Your task to perform on an android device: Show the shopping cart on walmart. Image 0: 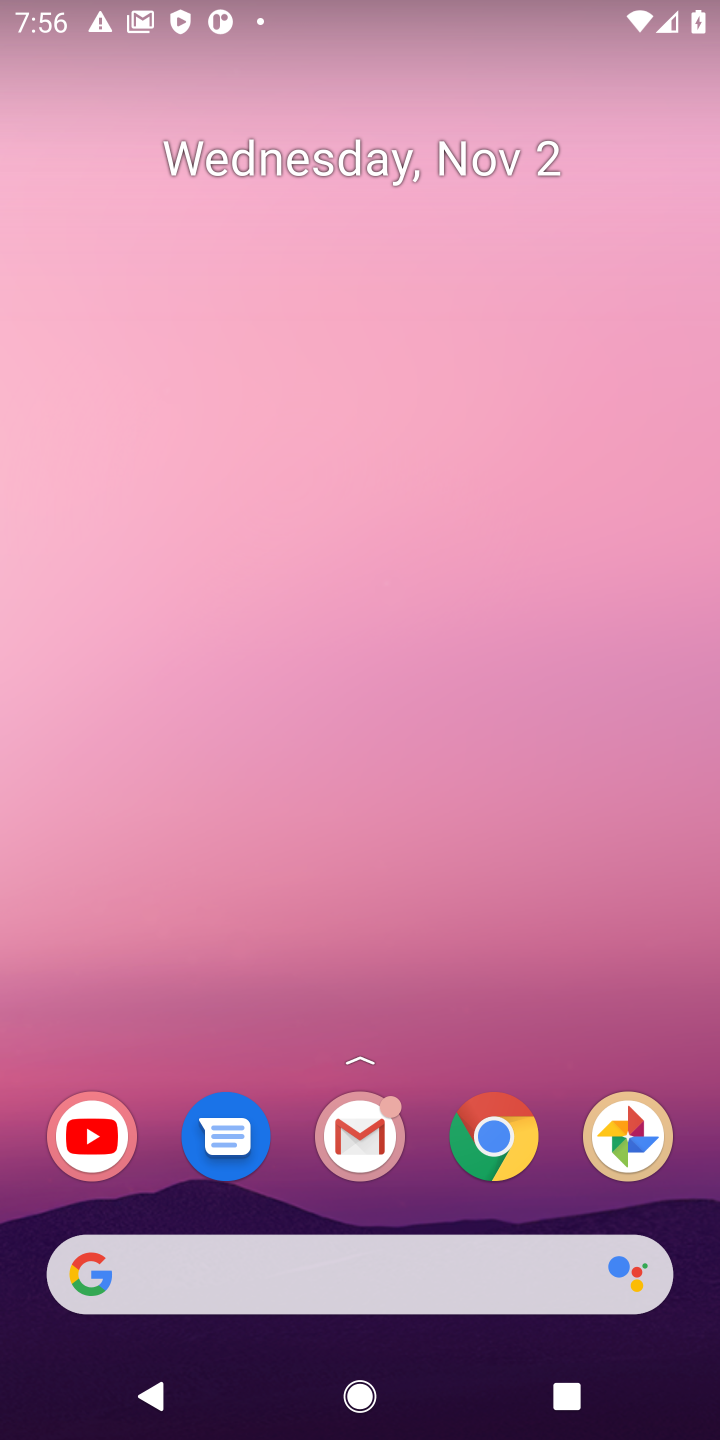
Step 0: drag from (305, 1192) to (251, 16)
Your task to perform on an android device: Show the shopping cart on walmart. Image 1: 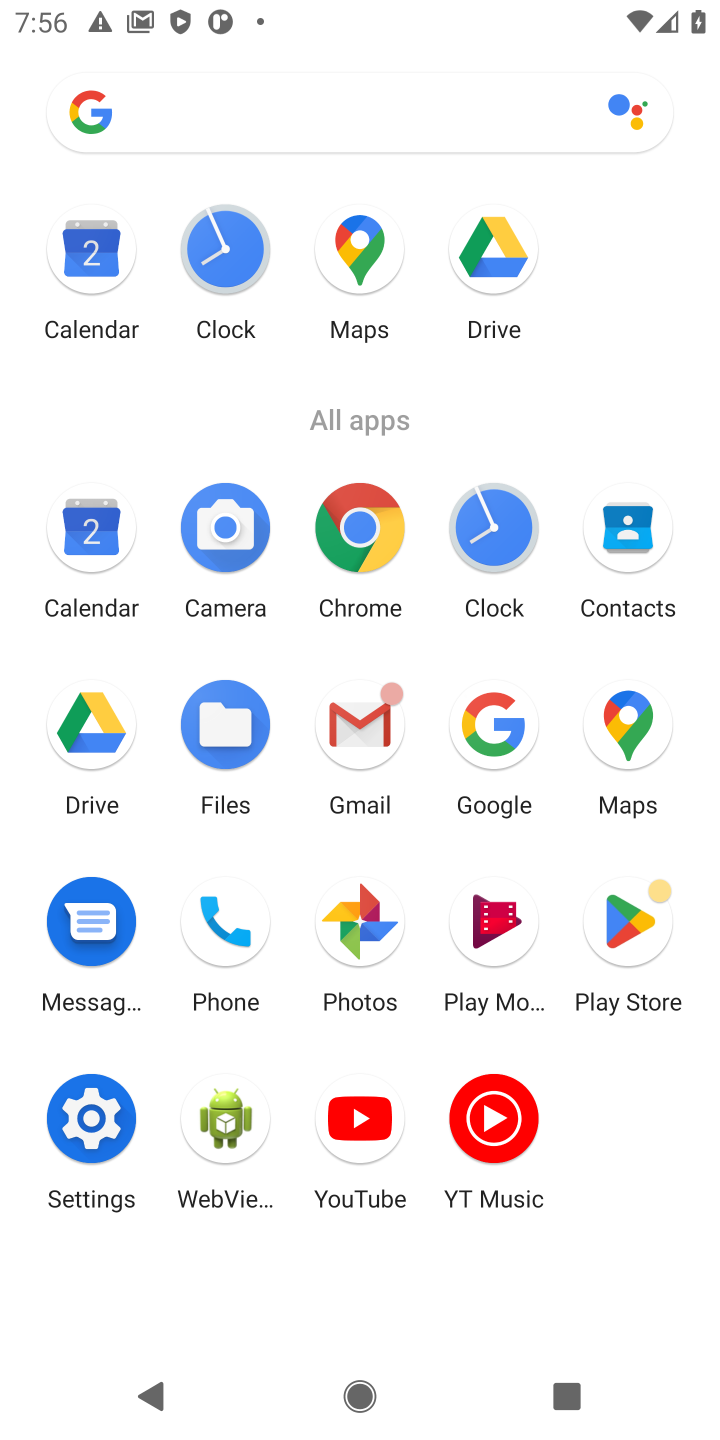
Step 1: click (491, 699)
Your task to perform on an android device: Show the shopping cart on walmart. Image 2: 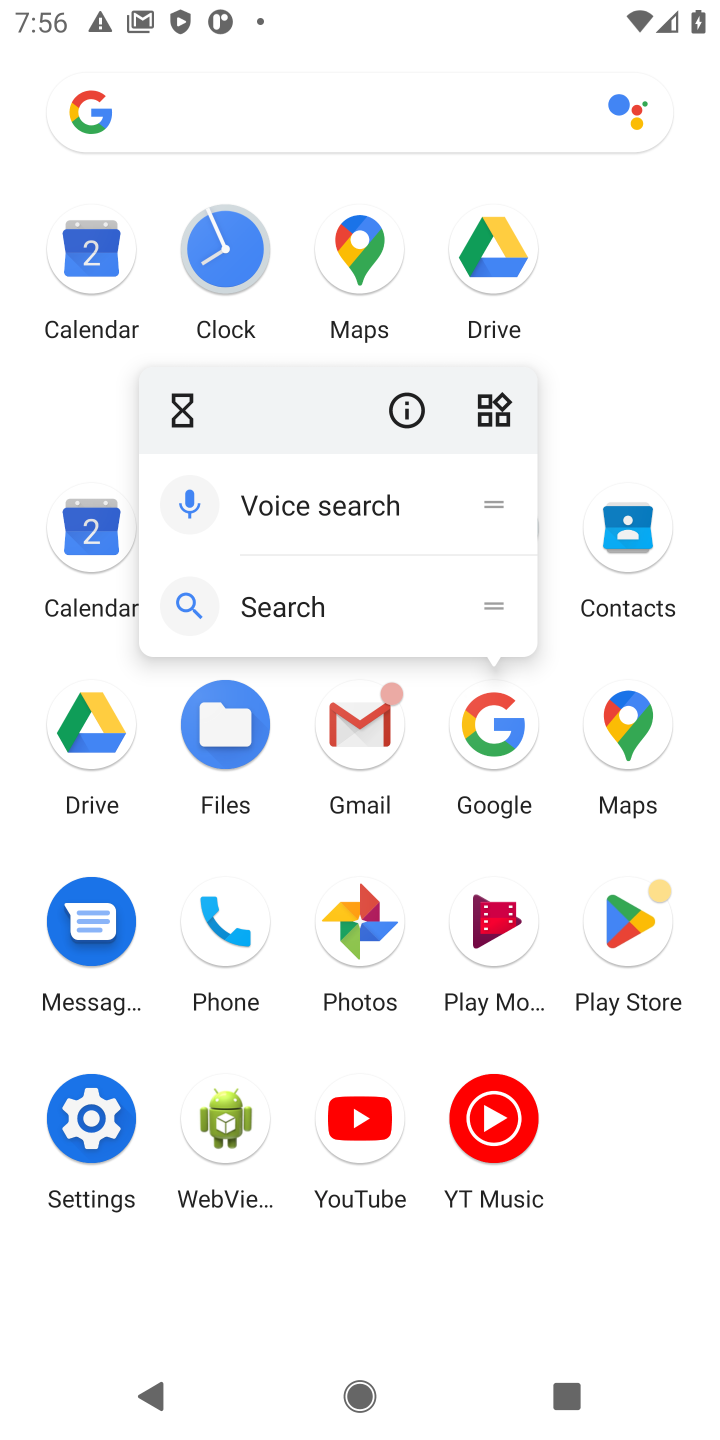
Step 2: click (490, 713)
Your task to perform on an android device: Show the shopping cart on walmart. Image 3: 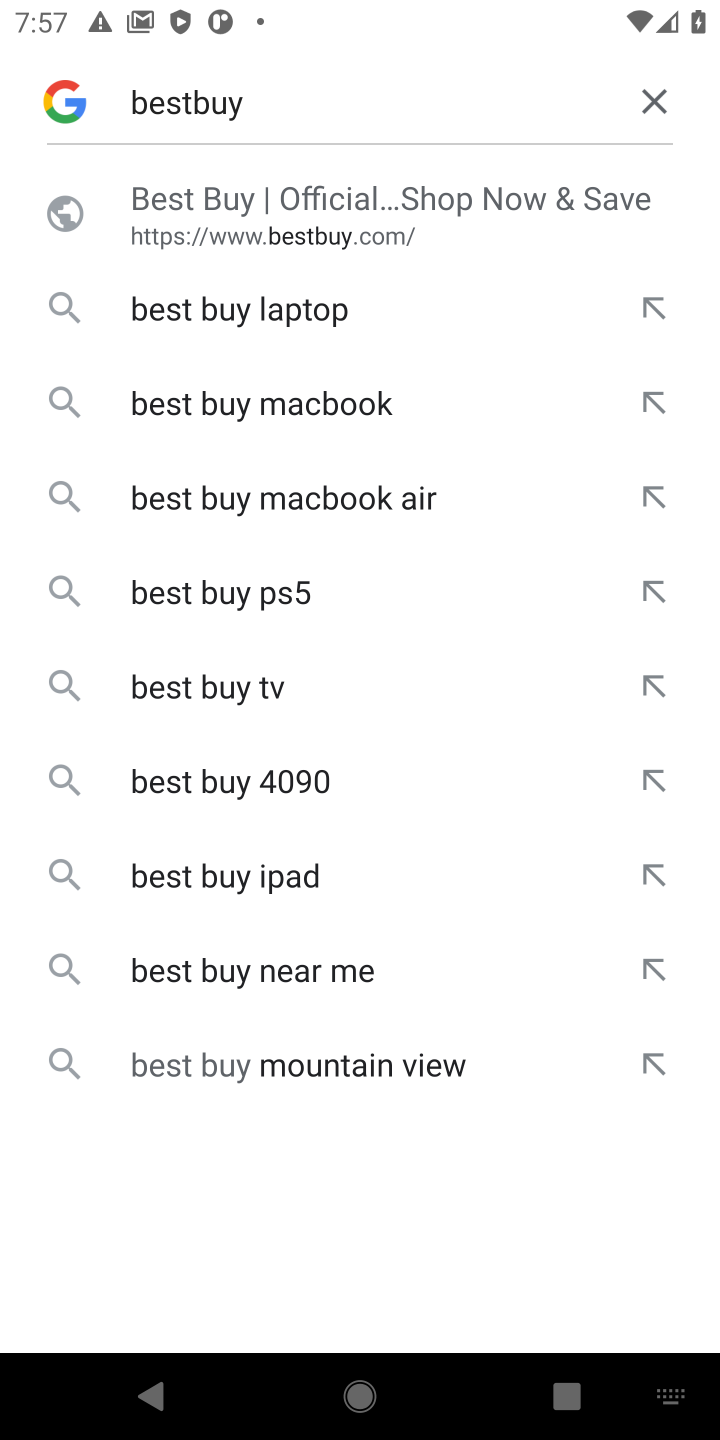
Step 3: click (213, 228)
Your task to perform on an android device: Show the shopping cart on walmart. Image 4: 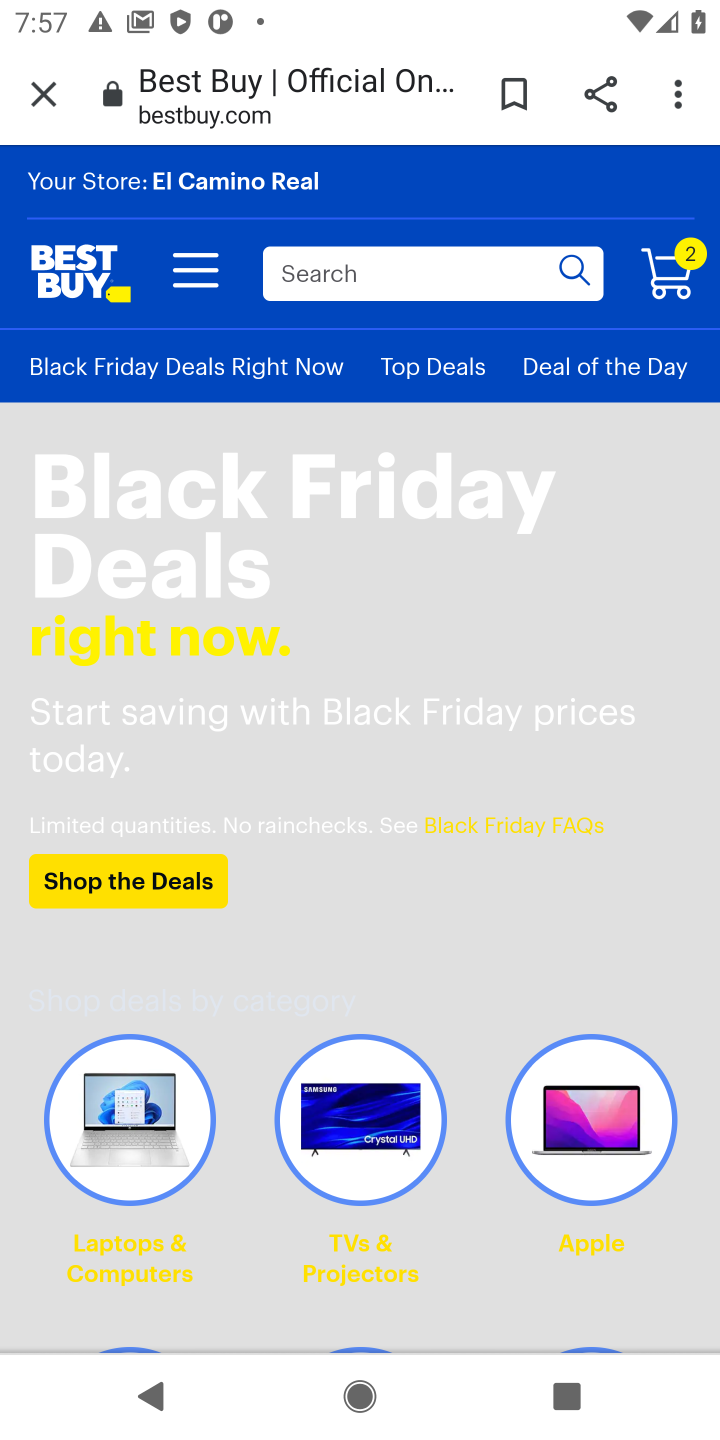
Step 4: click (42, 95)
Your task to perform on an android device: Show the shopping cart on walmart. Image 5: 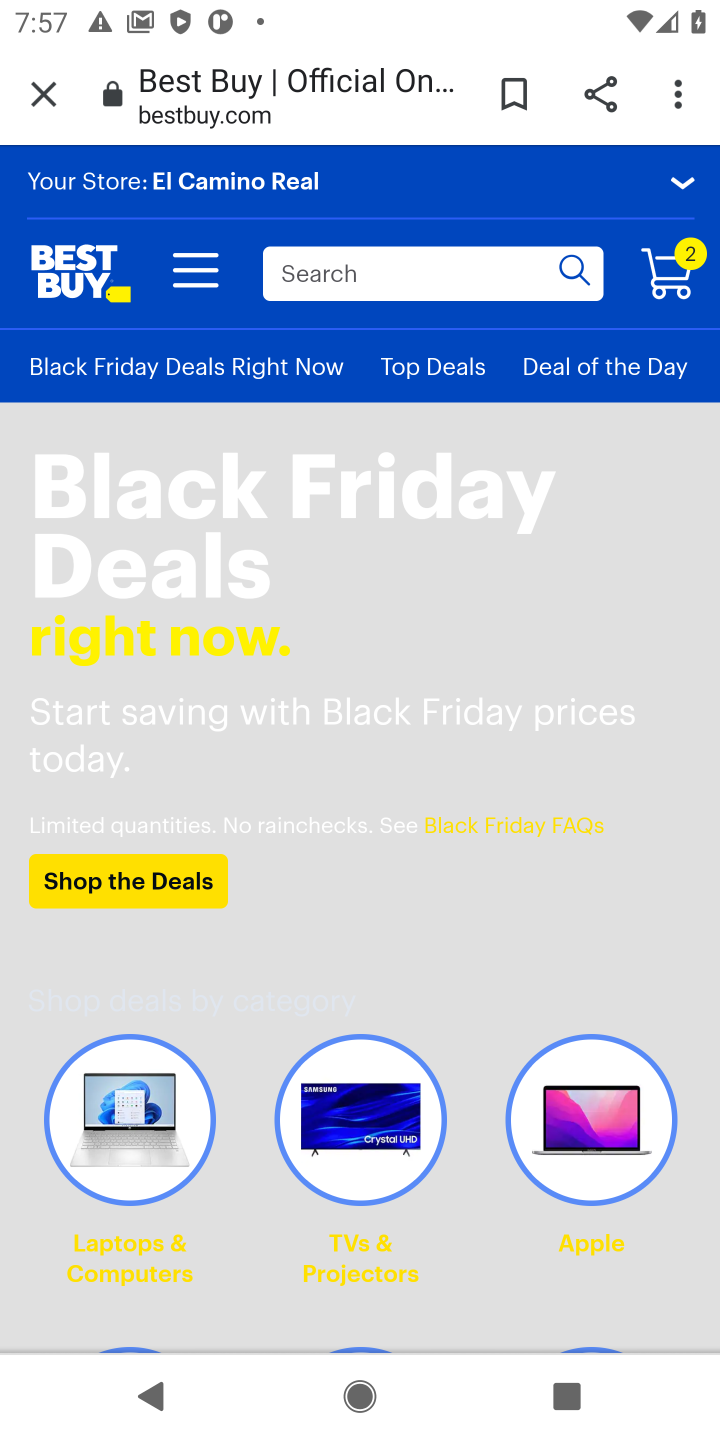
Step 5: click (56, 88)
Your task to perform on an android device: Show the shopping cart on walmart. Image 6: 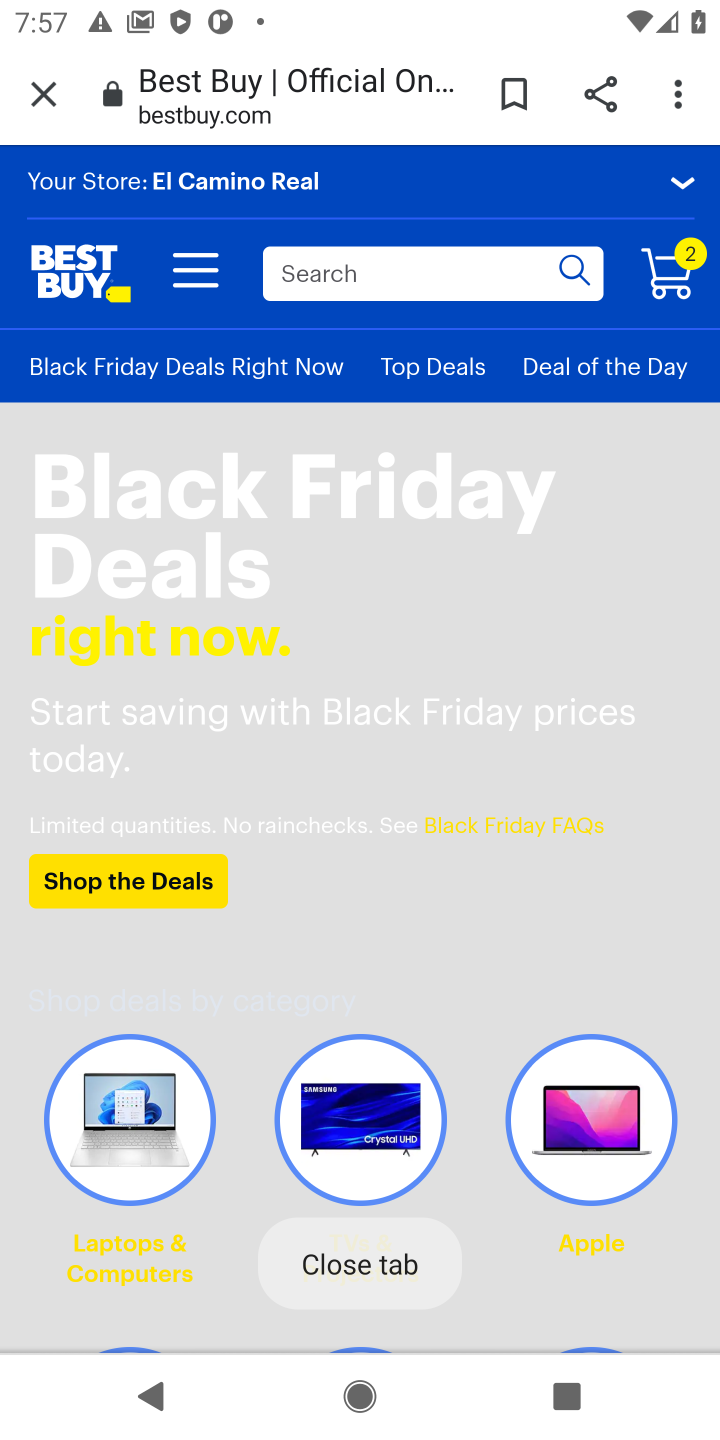
Step 6: click (35, 104)
Your task to perform on an android device: Show the shopping cart on walmart. Image 7: 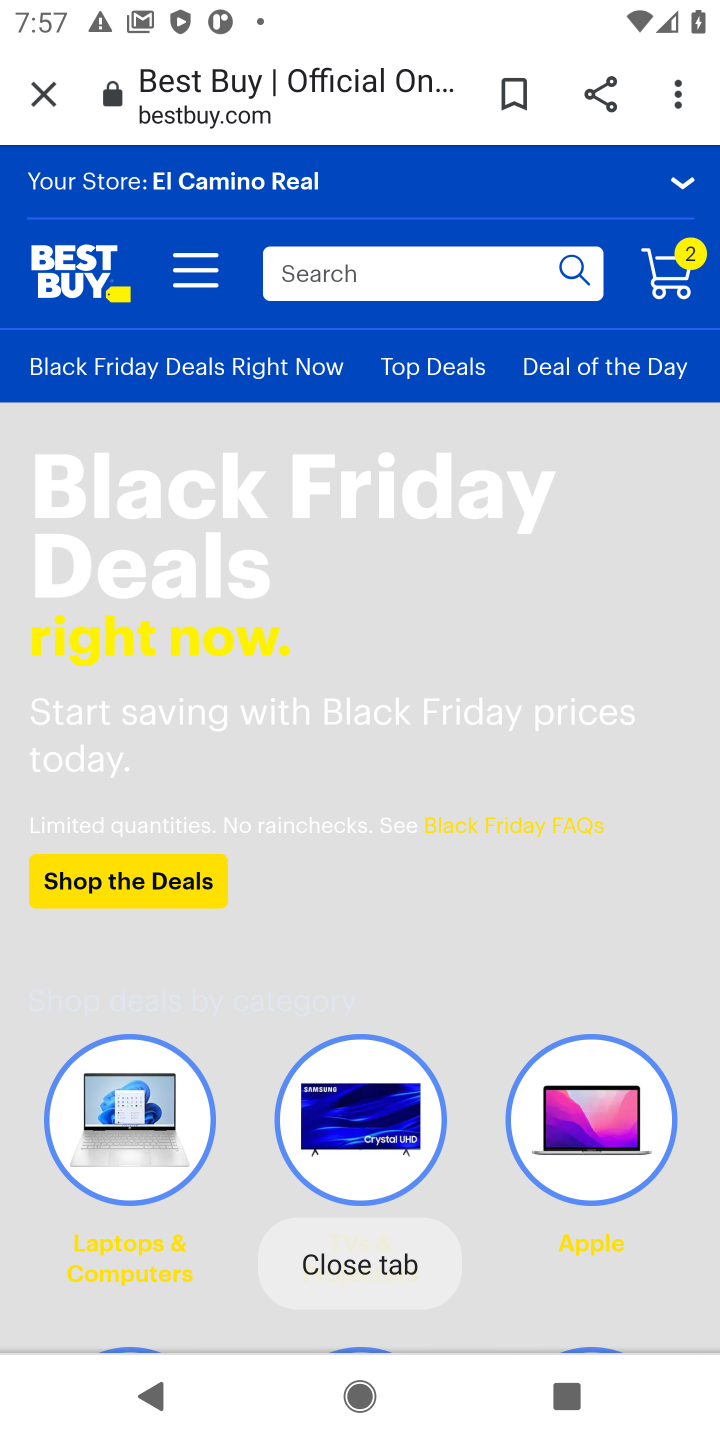
Step 7: press back button
Your task to perform on an android device: Show the shopping cart on walmart. Image 8: 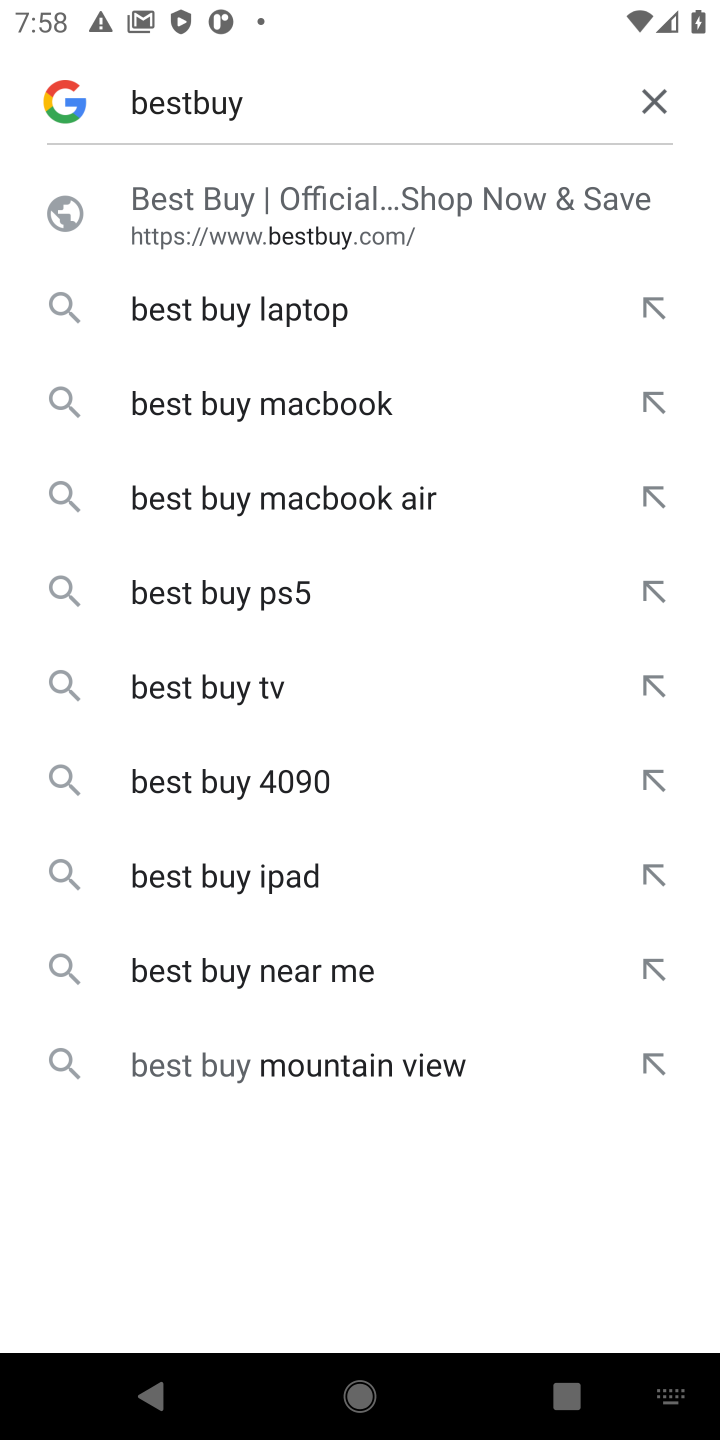
Step 8: click (643, 103)
Your task to perform on an android device: Show the shopping cart on walmart. Image 9: 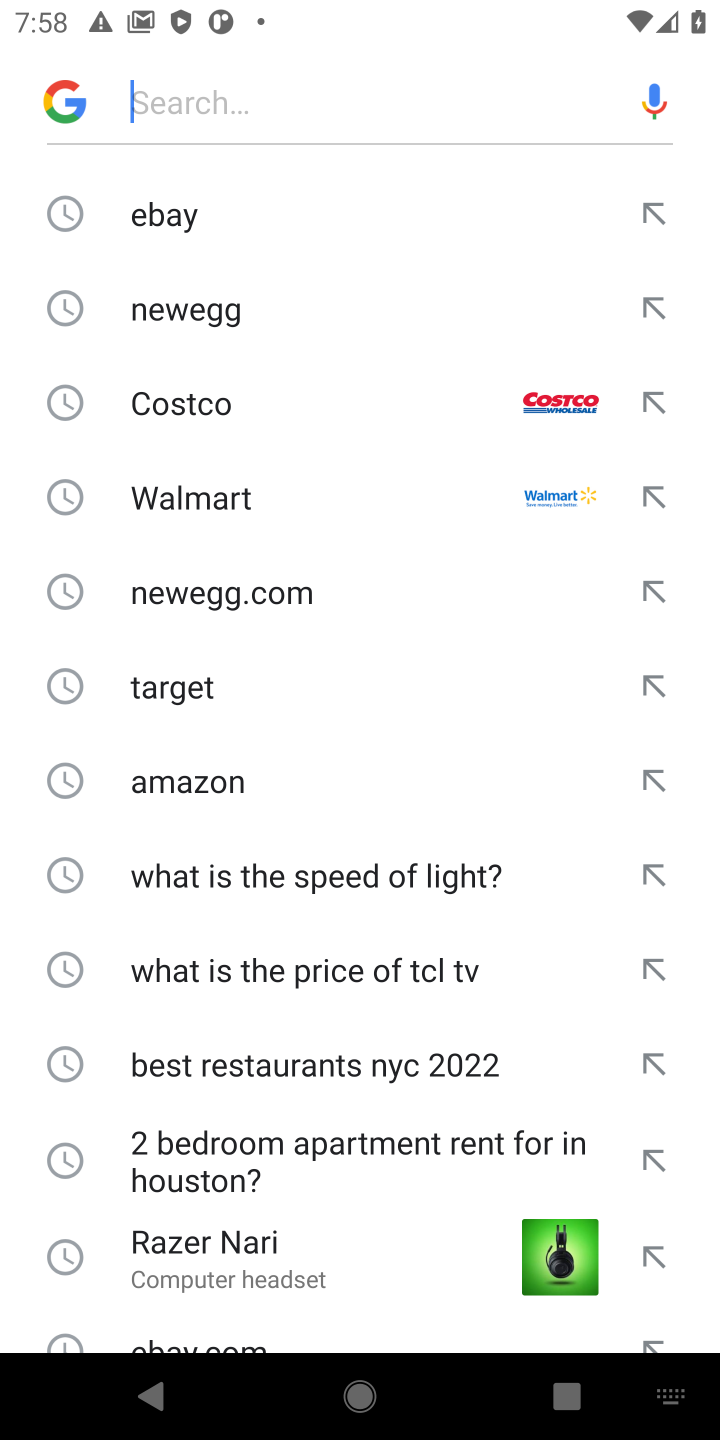
Step 9: click (202, 476)
Your task to perform on an android device: Show the shopping cart on walmart. Image 10: 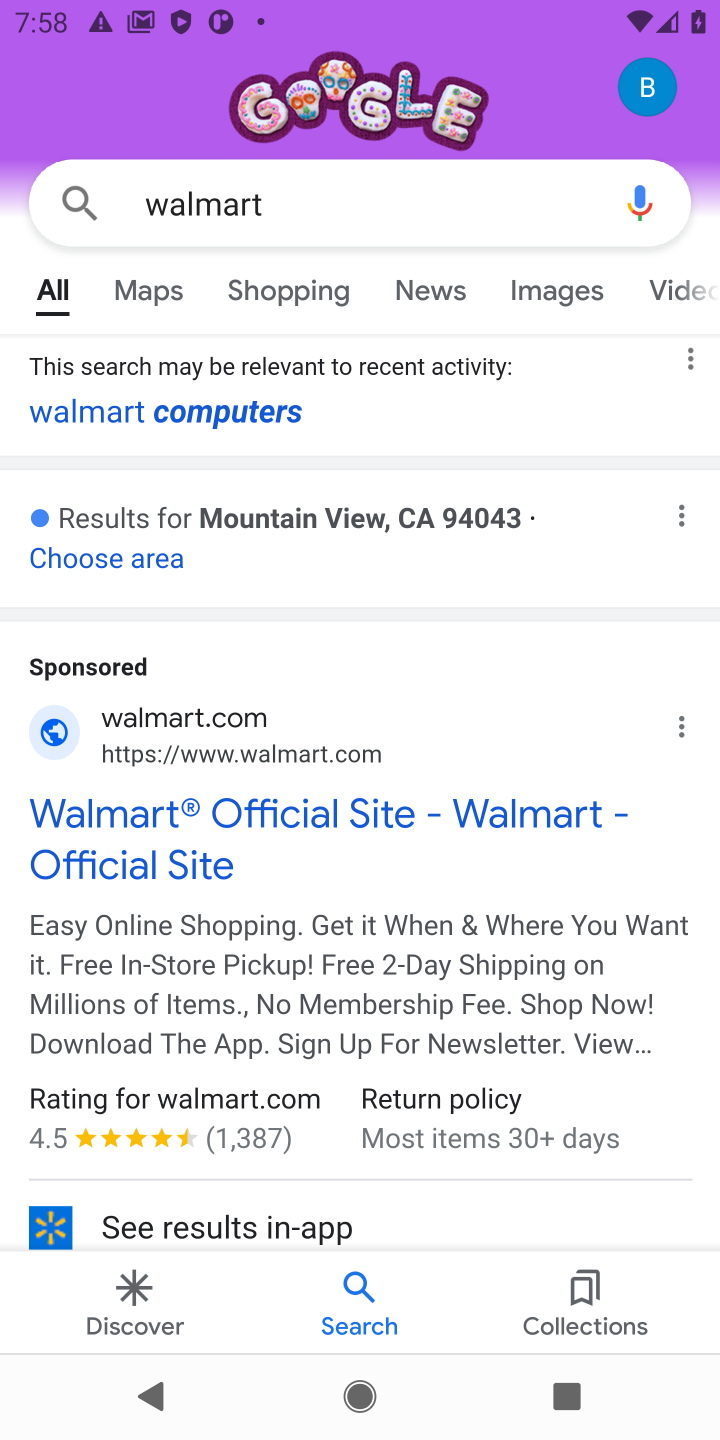
Step 10: drag from (141, 961) to (207, 370)
Your task to perform on an android device: Show the shopping cart on walmart. Image 11: 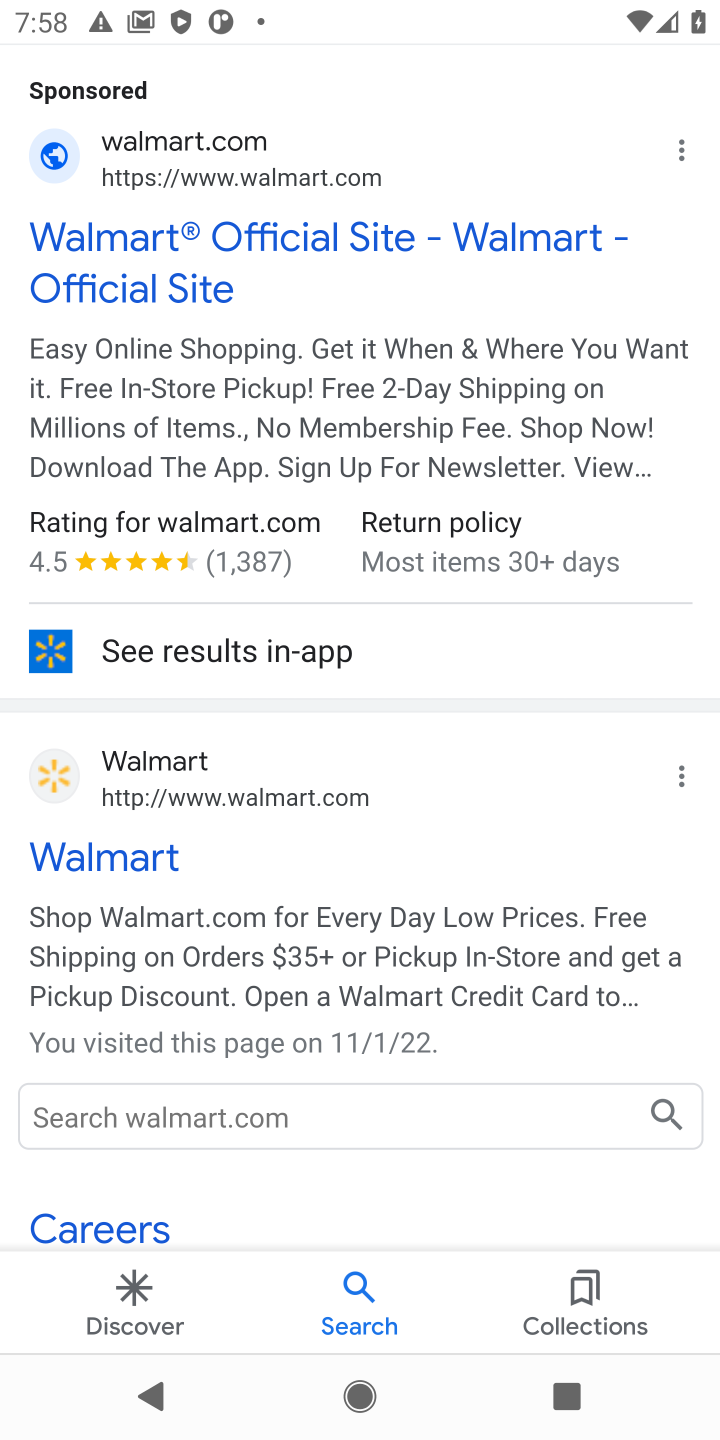
Step 11: click (47, 758)
Your task to perform on an android device: Show the shopping cart on walmart. Image 12: 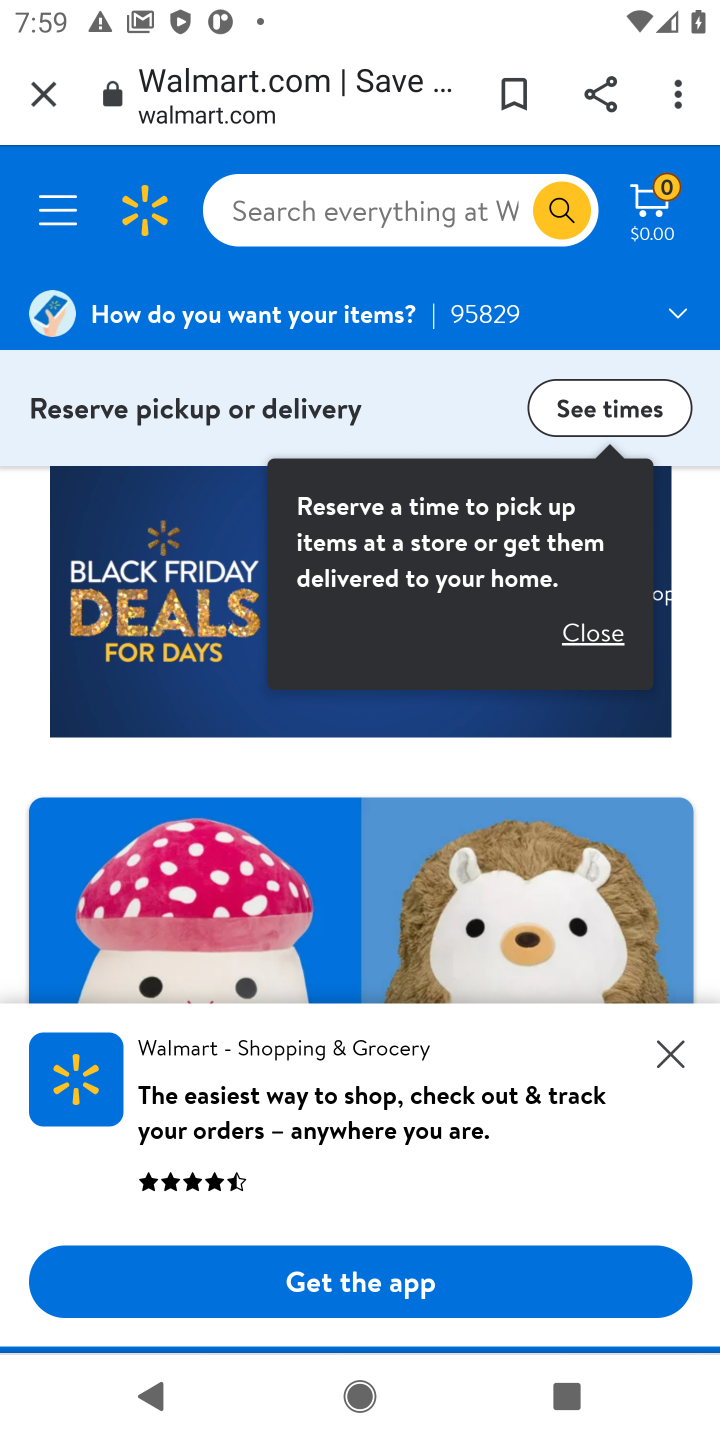
Step 12: click (677, 1050)
Your task to perform on an android device: Show the shopping cart on walmart. Image 13: 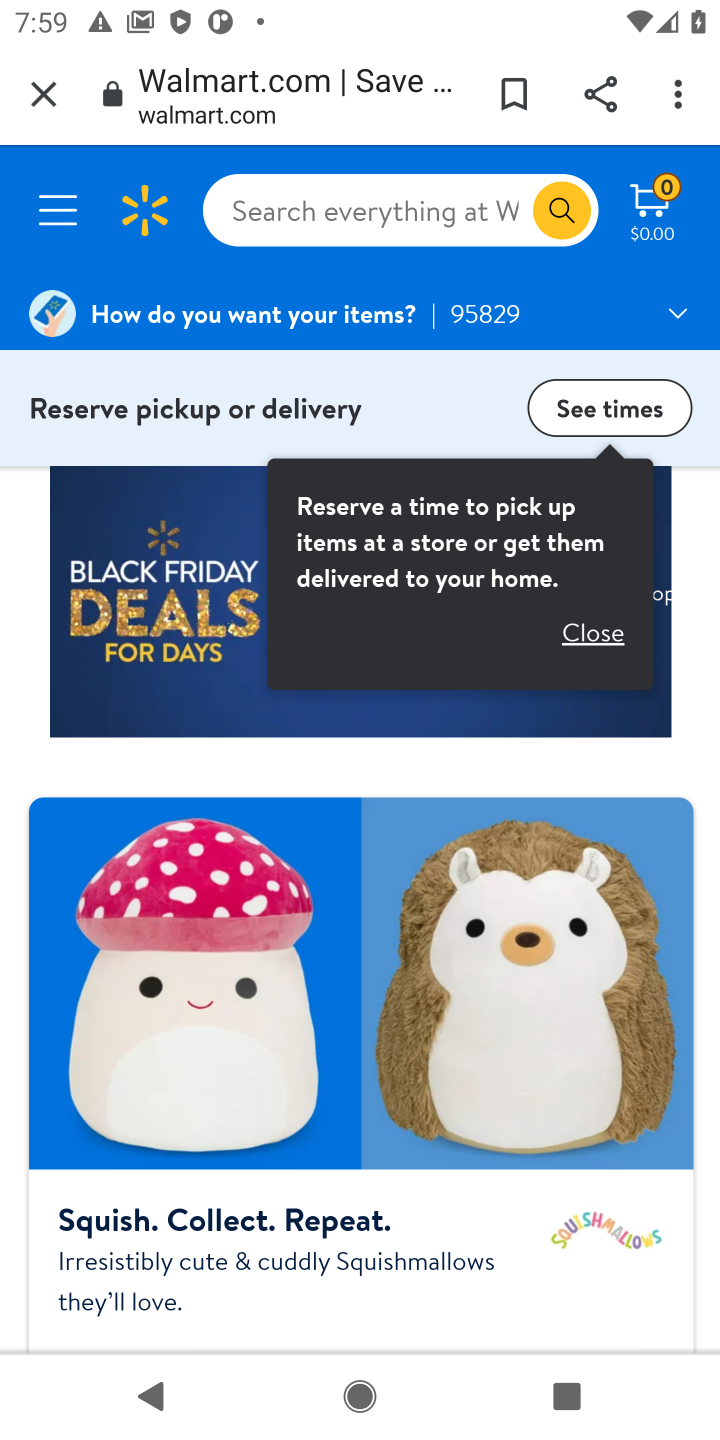
Step 13: click (668, 199)
Your task to perform on an android device: Show the shopping cart on walmart. Image 14: 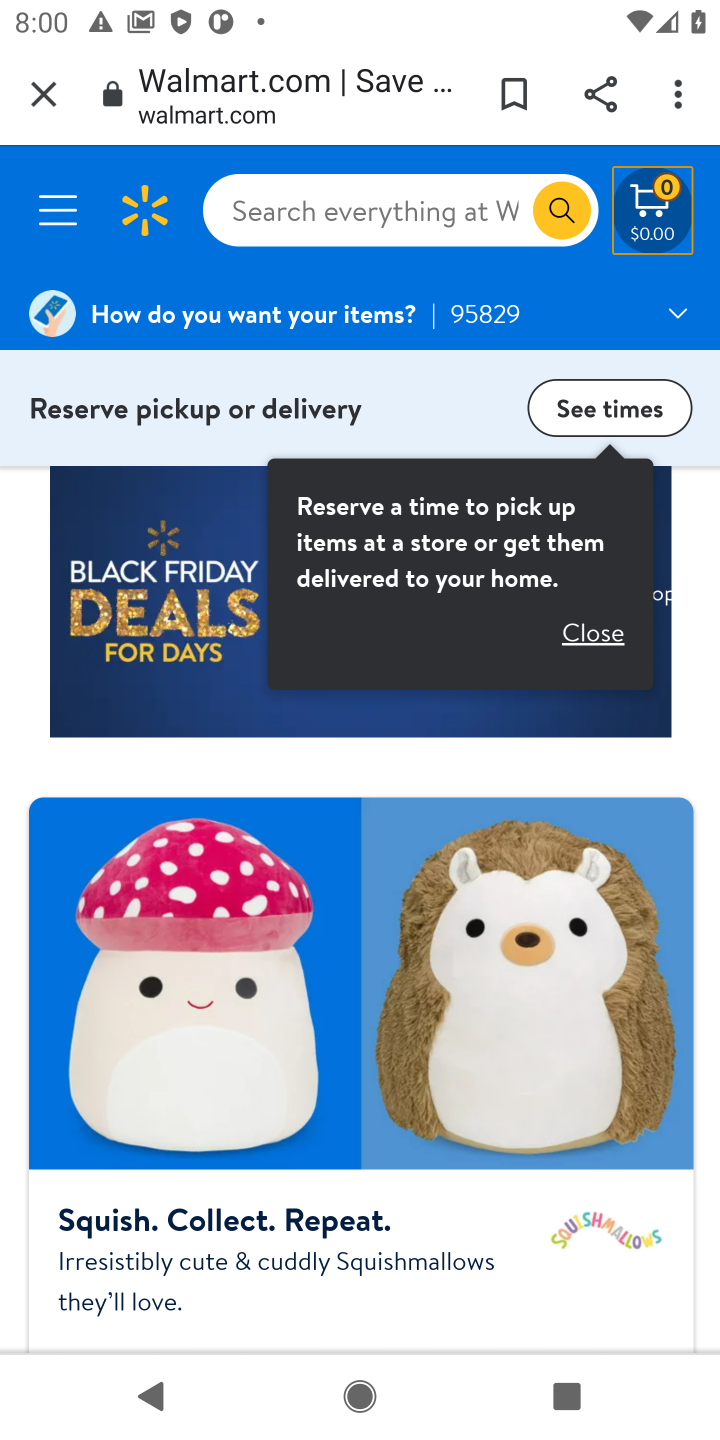
Step 14: click (656, 197)
Your task to perform on an android device: Show the shopping cart on walmart. Image 15: 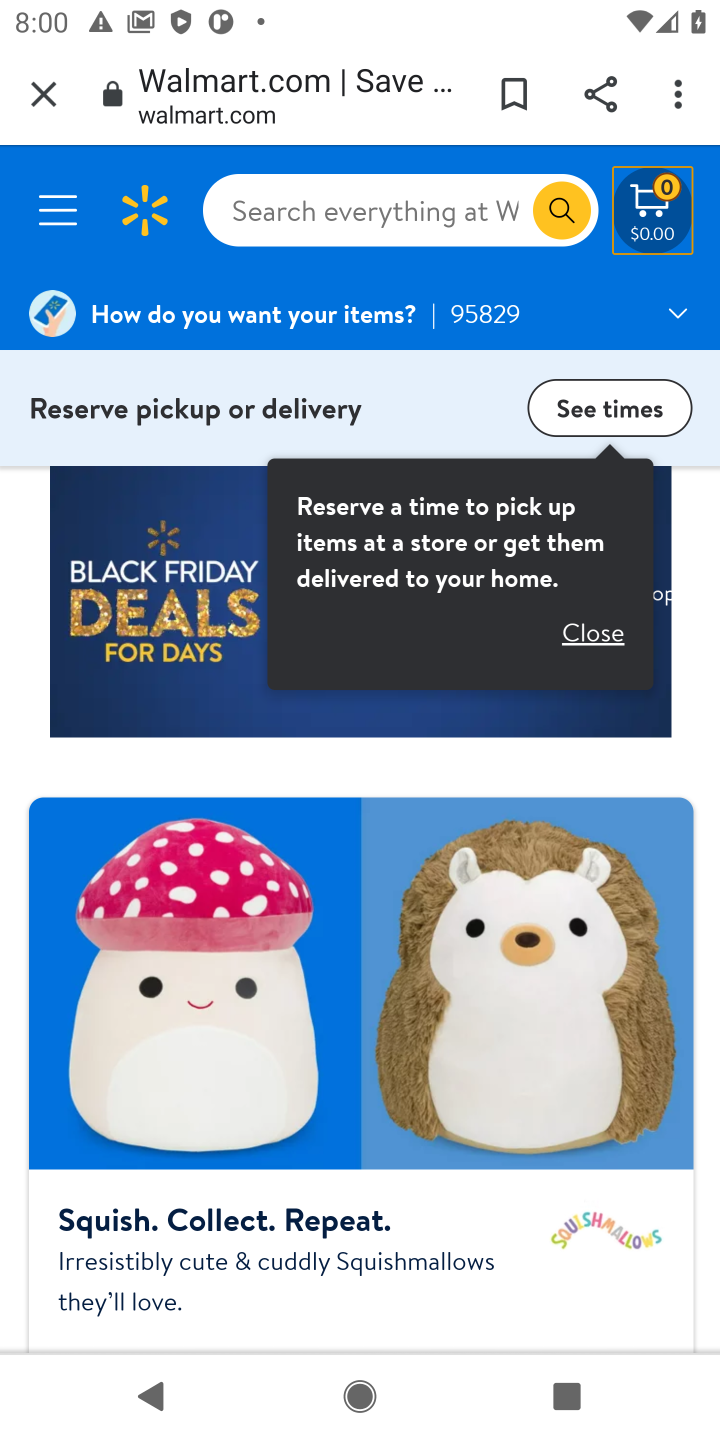
Step 15: task complete